Your task to perform on an android device: Open the calendar app, open the side menu, and click the "Day" option Image 0: 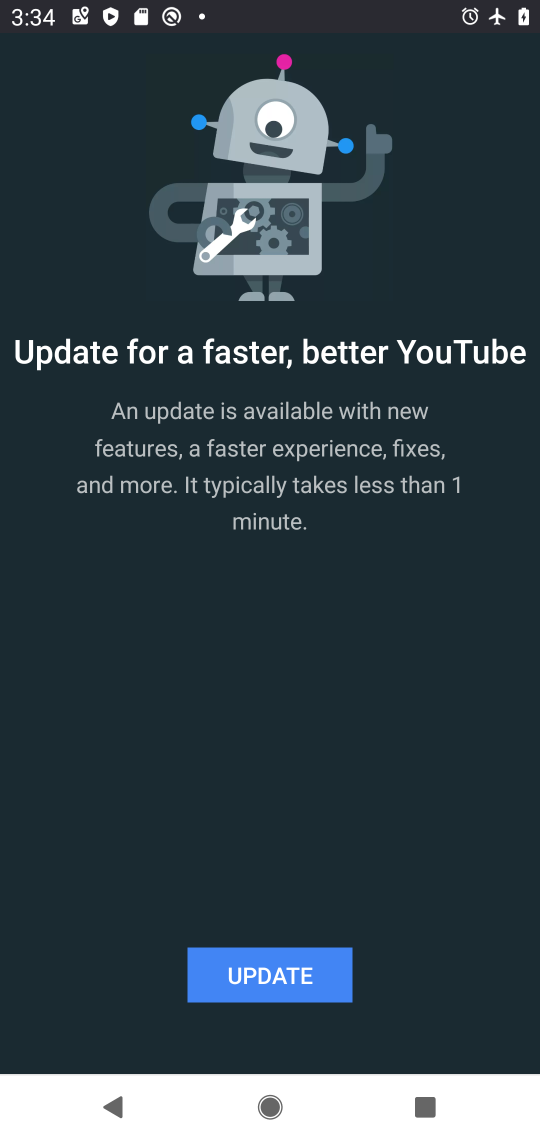
Step 0: press back button
Your task to perform on an android device: Open the calendar app, open the side menu, and click the "Day" option Image 1: 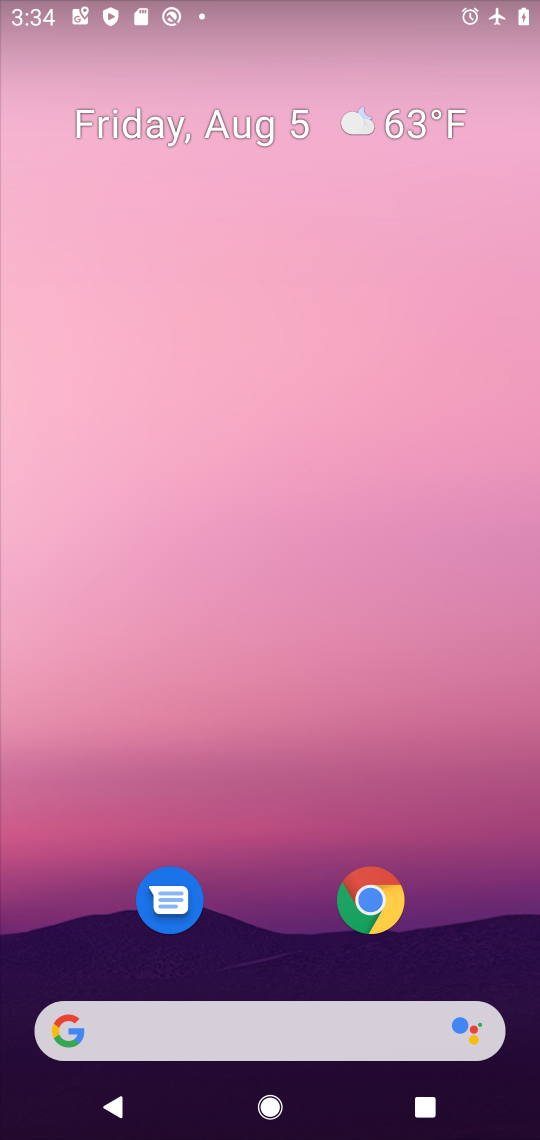
Step 1: drag from (266, 901) to (456, 1)
Your task to perform on an android device: Open the calendar app, open the side menu, and click the "Day" option Image 2: 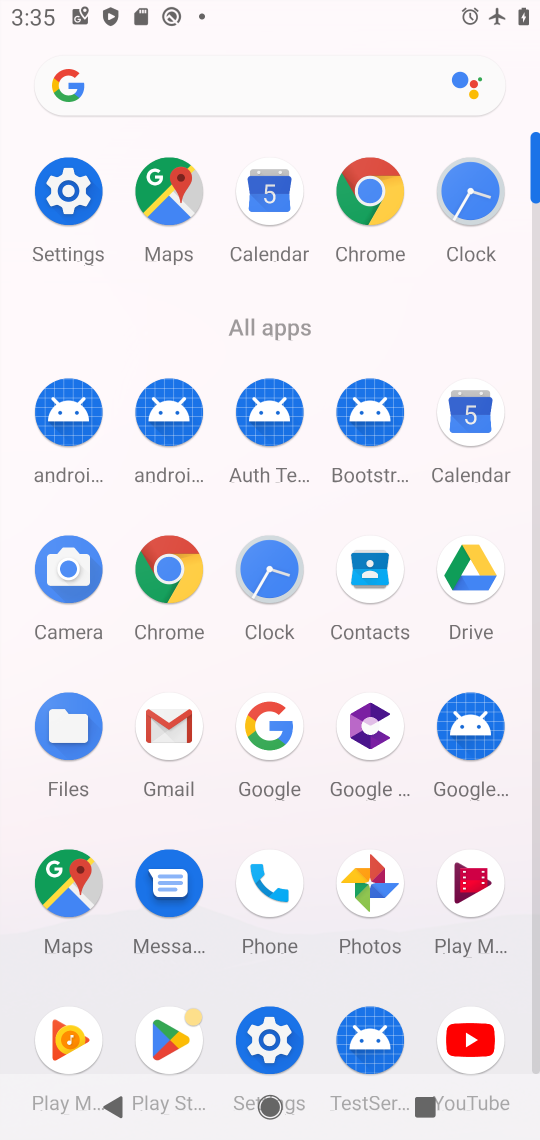
Step 2: click (470, 452)
Your task to perform on an android device: Open the calendar app, open the side menu, and click the "Day" option Image 3: 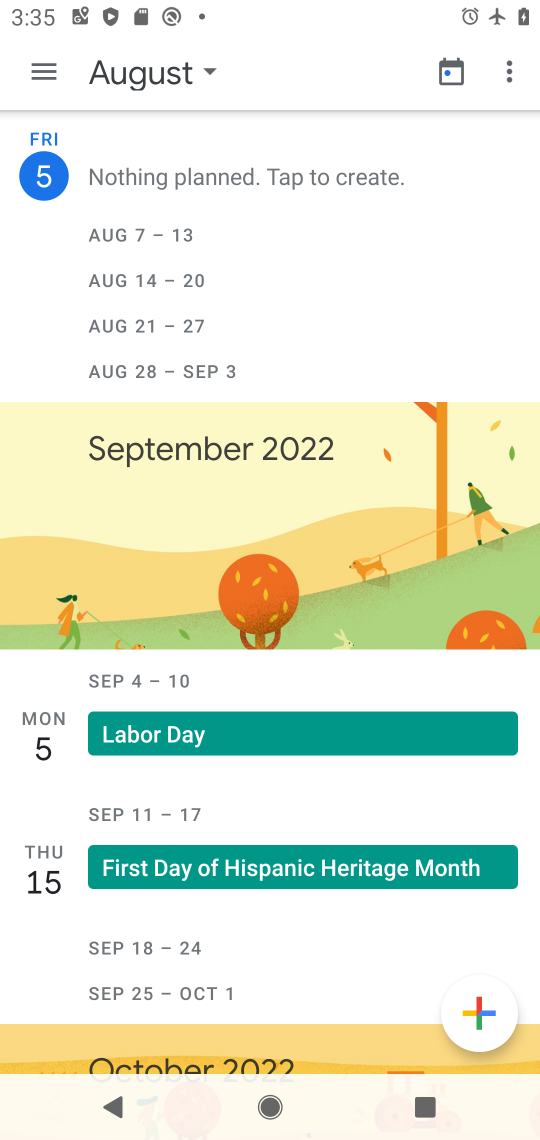
Step 3: click (24, 59)
Your task to perform on an android device: Open the calendar app, open the side menu, and click the "Day" option Image 4: 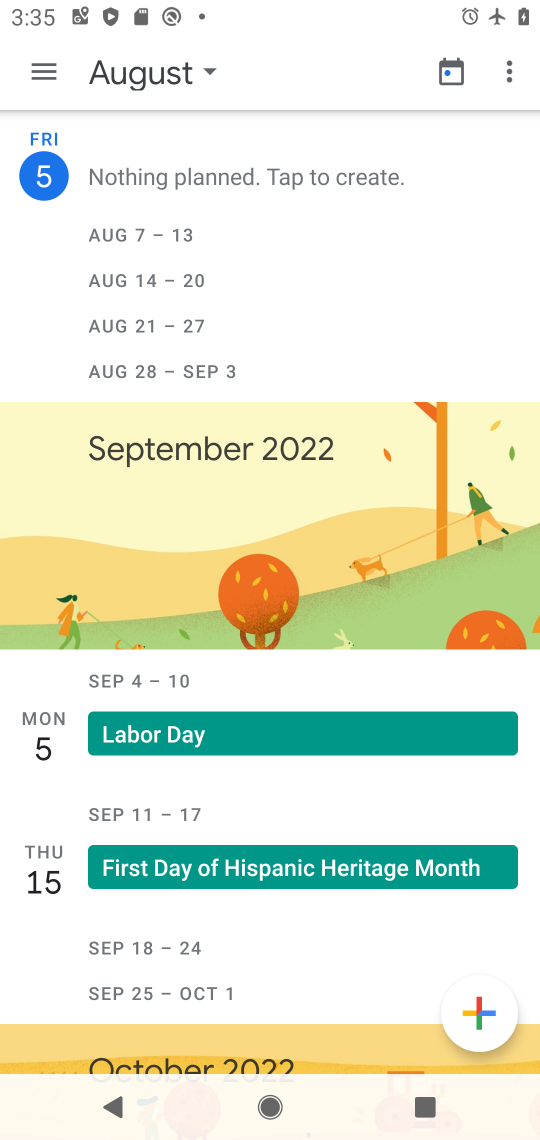
Step 4: click (62, 95)
Your task to perform on an android device: Open the calendar app, open the side menu, and click the "Day" option Image 5: 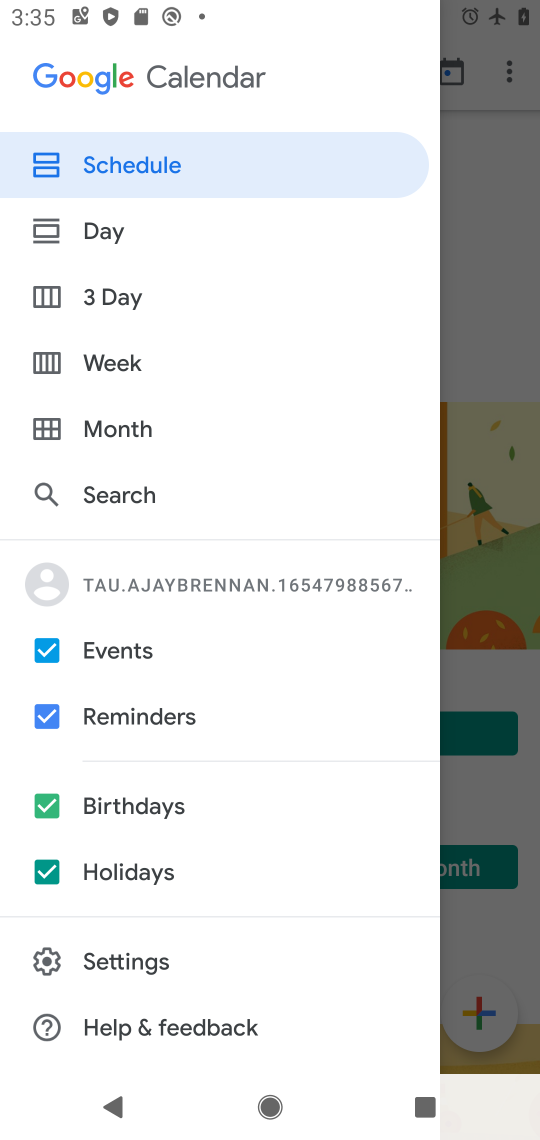
Step 5: click (114, 229)
Your task to perform on an android device: Open the calendar app, open the side menu, and click the "Day" option Image 6: 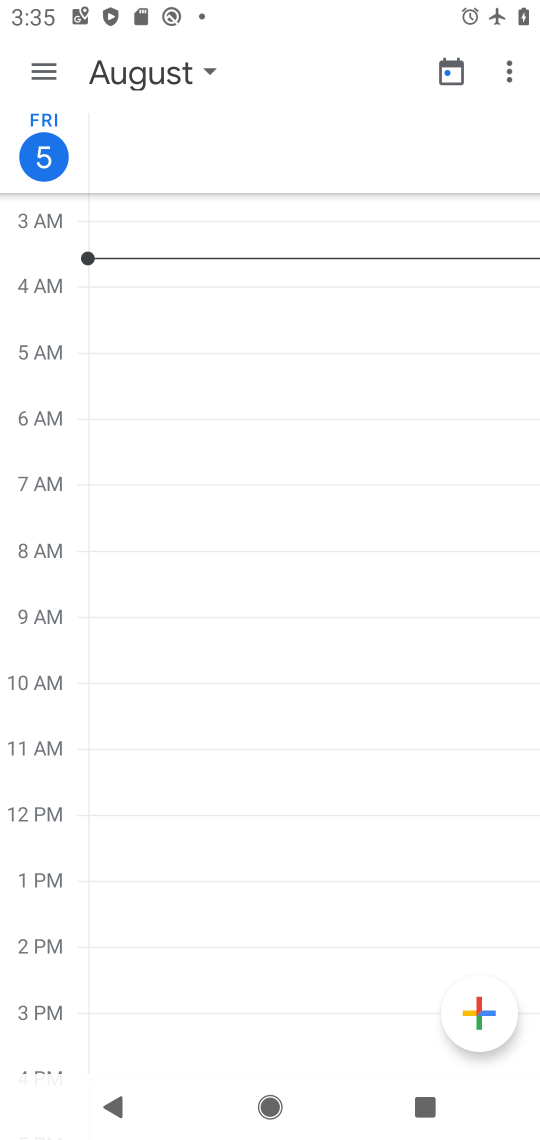
Step 6: task complete